Your task to perform on an android device: open a bookmark in the chrome app Image 0: 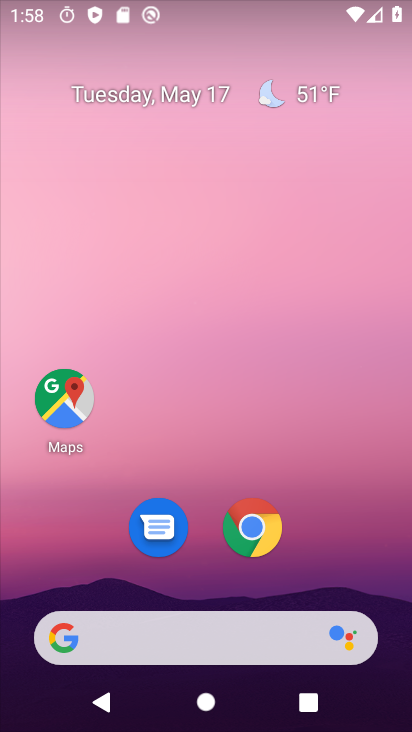
Step 0: click (253, 525)
Your task to perform on an android device: open a bookmark in the chrome app Image 1: 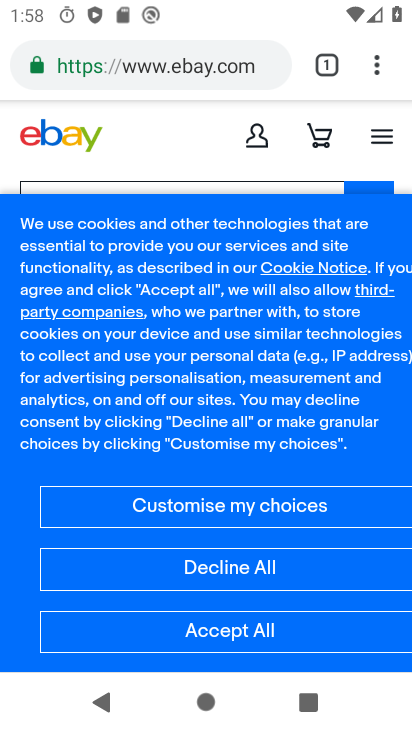
Step 1: click (377, 64)
Your task to perform on an android device: open a bookmark in the chrome app Image 2: 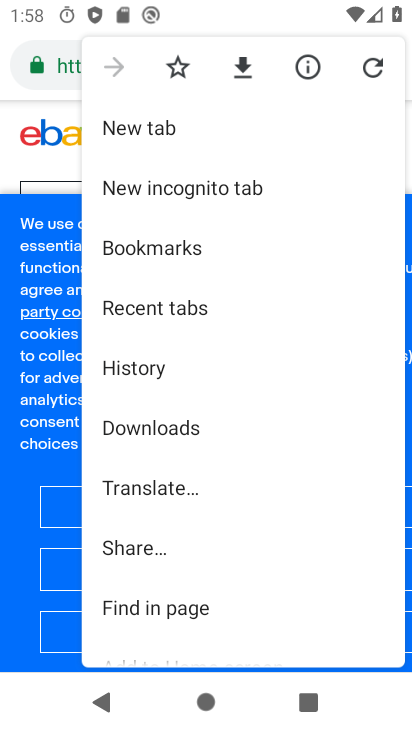
Step 2: drag from (193, 467) to (242, 402)
Your task to perform on an android device: open a bookmark in the chrome app Image 3: 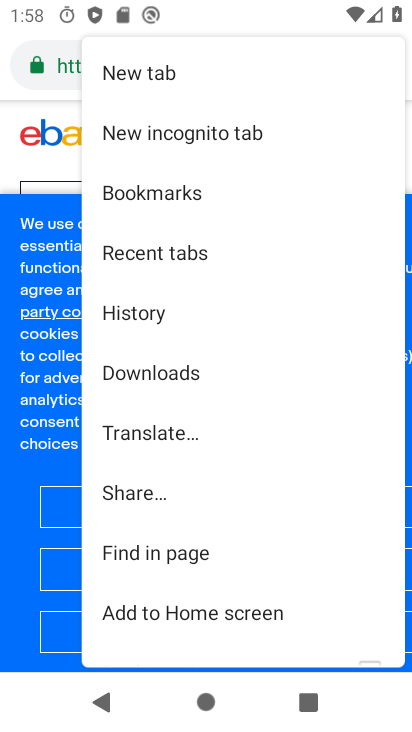
Step 3: click (172, 190)
Your task to perform on an android device: open a bookmark in the chrome app Image 4: 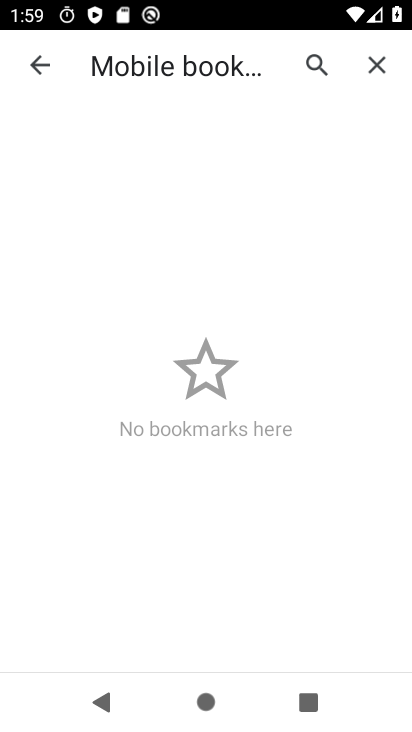
Step 4: task complete